Your task to perform on an android device: Open sound settings Image 0: 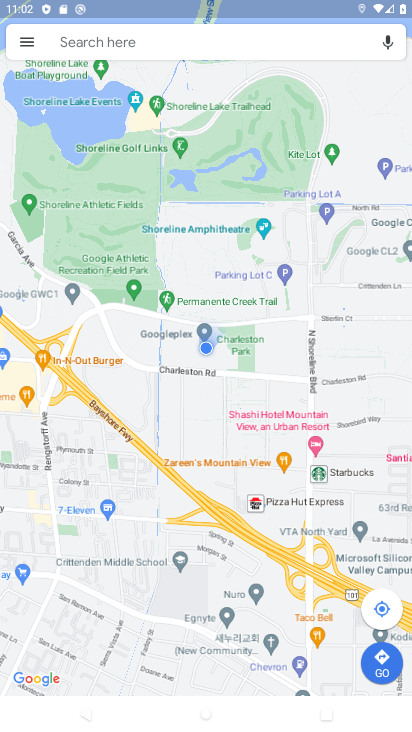
Step 0: drag from (288, 9) to (242, 588)
Your task to perform on an android device: Open sound settings Image 1: 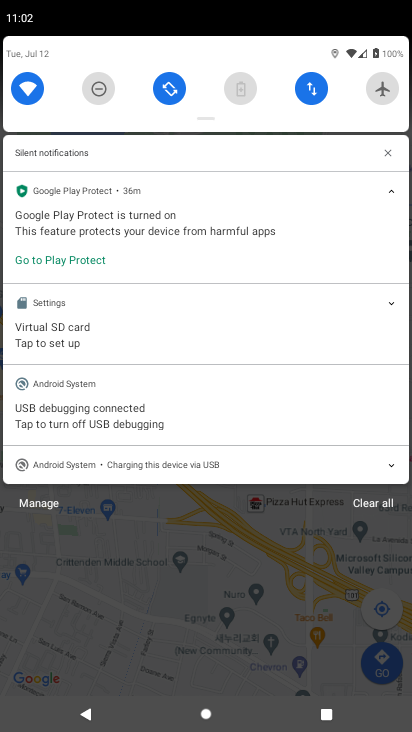
Step 1: drag from (232, 49) to (269, 651)
Your task to perform on an android device: Open sound settings Image 2: 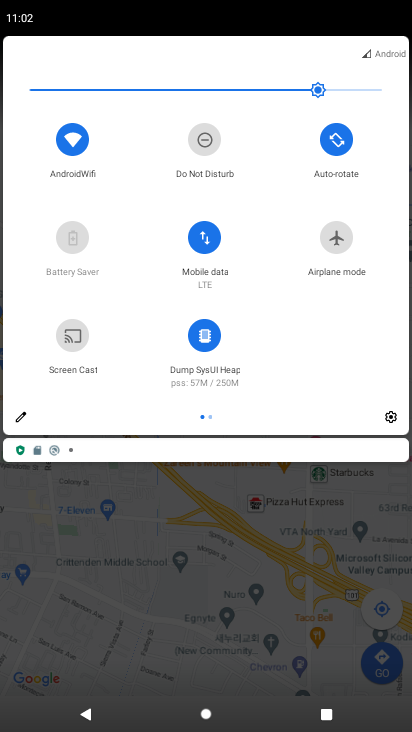
Step 2: click (392, 419)
Your task to perform on an android device: Open sound settings Image 3: 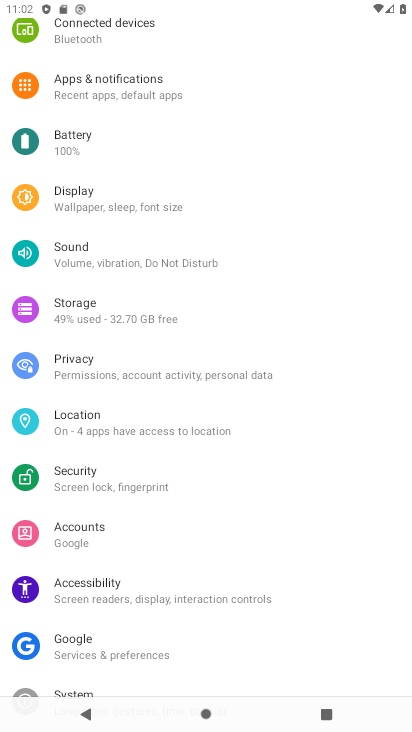
Step 3: click (110, 244)
Your task to perform on an android device: Open sound settings Image 4: 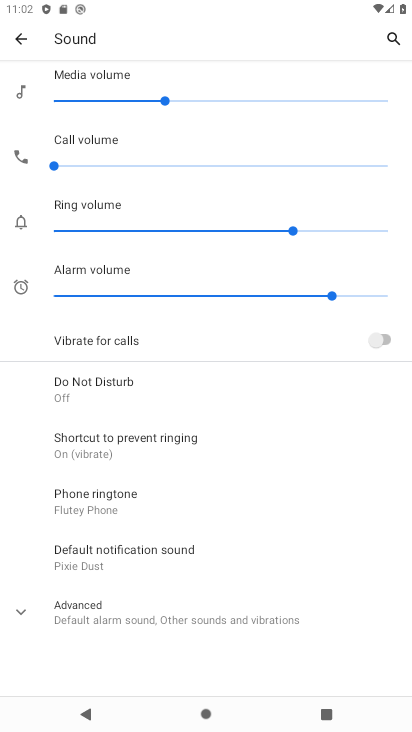
Step 4: task complete